Your task to perform on an android device: Clear the cart on costco.com. Image 0: 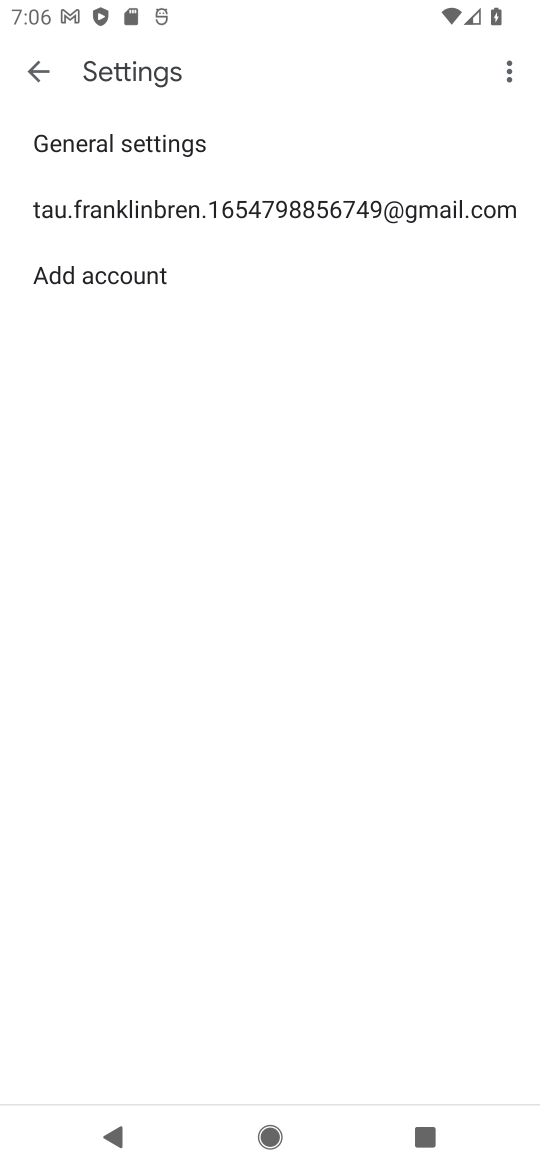
Step 0: press home button
Your task to perform on an android device: Clear the cart on costco.com. Image 1: 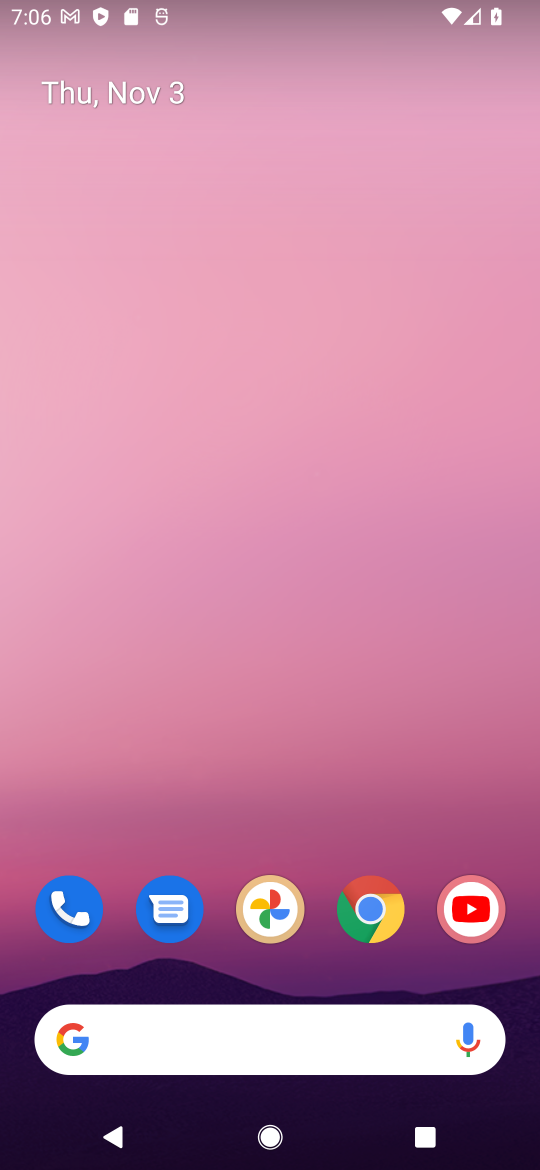
Step 1: drag from (151, 978) to (267, 343)
Your task to perform on an android device: Clear the cart on costco.com. Image 2: 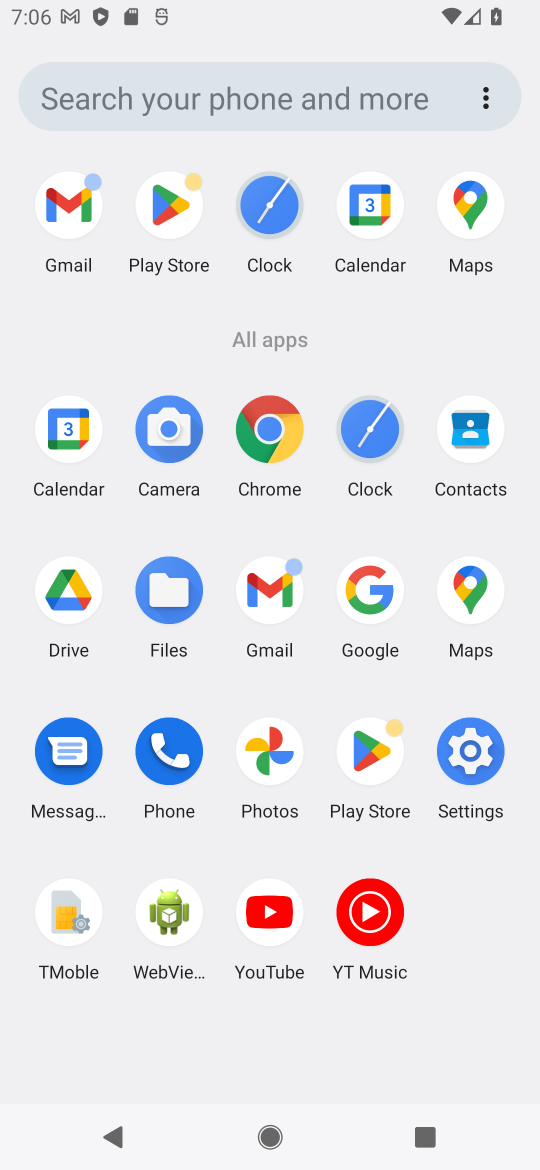
Step 2: click (374, 598)
Your task to perform on an android device: Clear the cart on costco.com. Image 3: 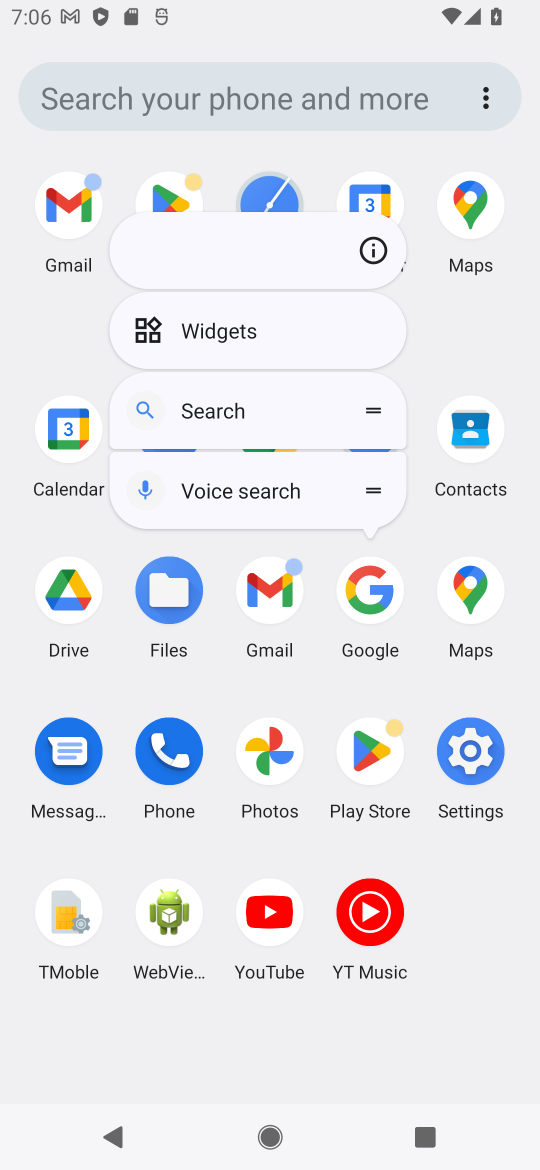
Step 3: click (360, 578)
Your task to perform on an android device: Clear the cart on costco.com. Image 4: 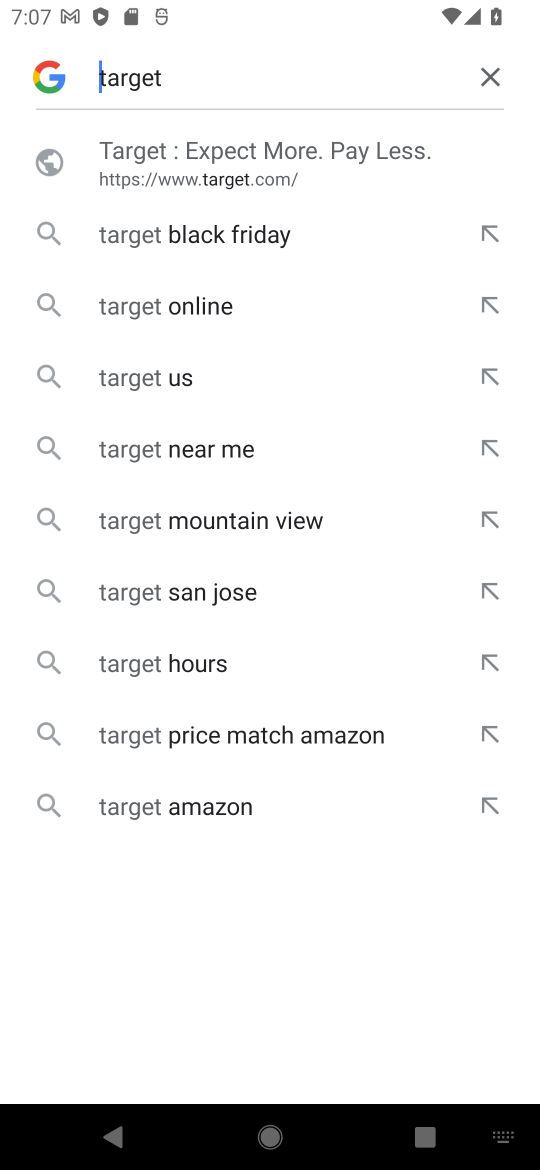
Step 4: click (484, 60)
Your task to perform on an android device: Clear the cart on costco.com. Image 5: 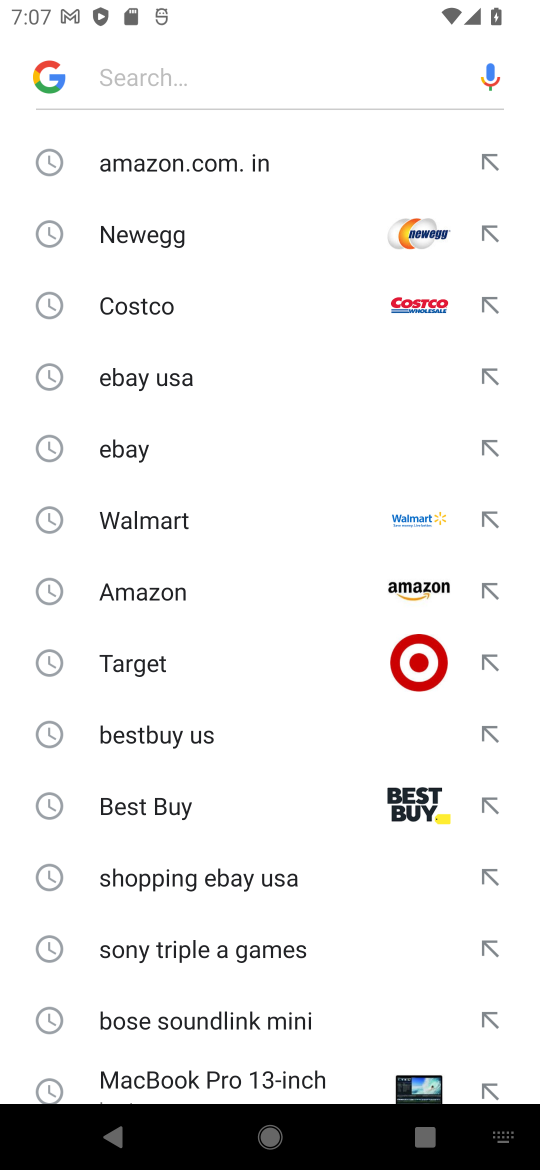
Step 5: click (230, 79)
Your task to perform on an android device: Clear the cart on costco.com. Image 6: 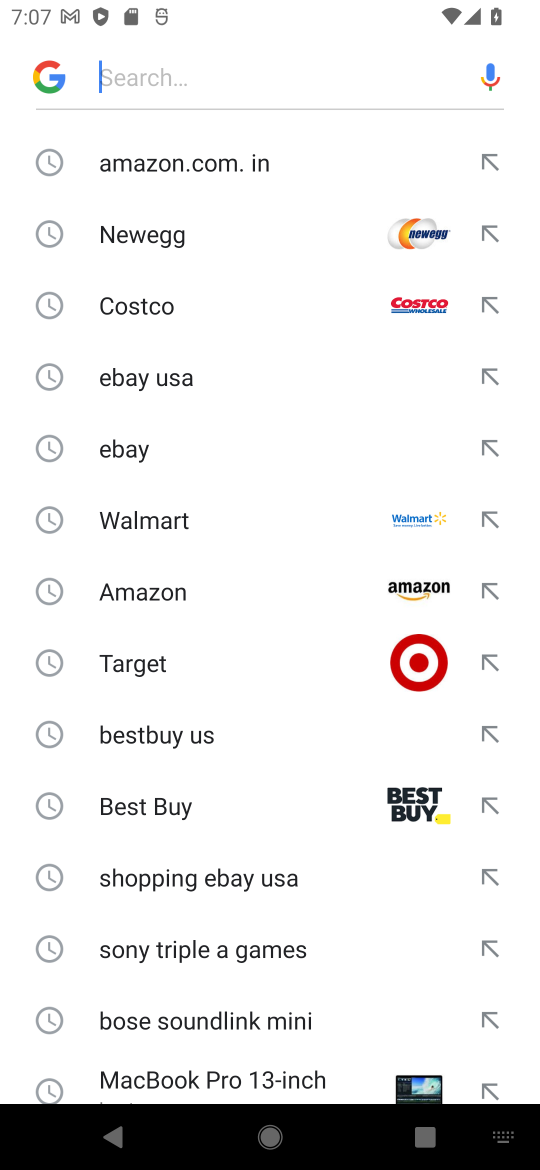
Step 6: type "costco.com. "
Your task to perform on an android device: Clear the cart on costco.com. Image 7: 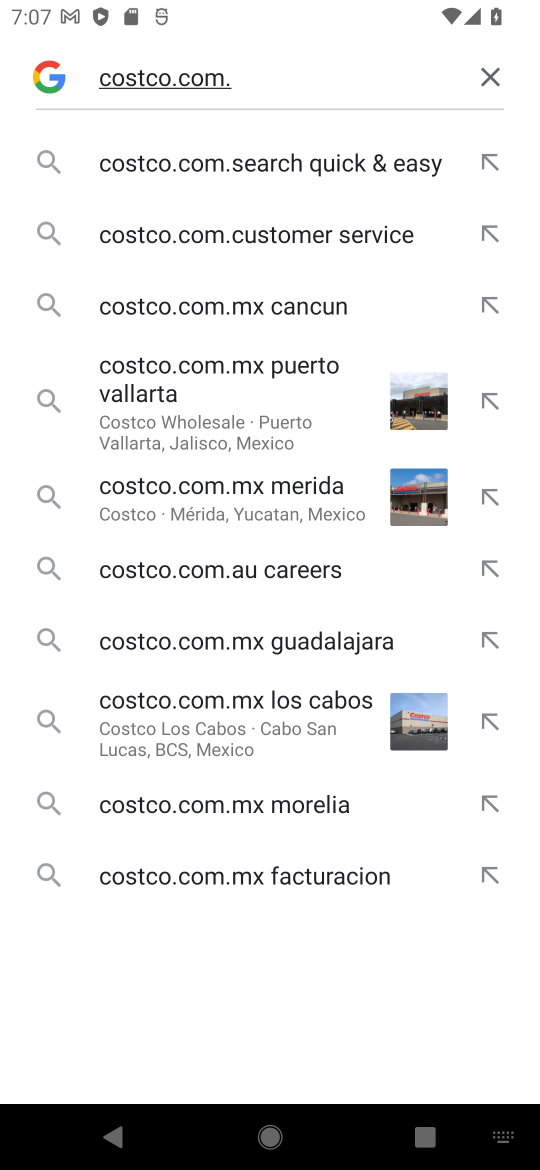
Step 7: click (483, 67)
Your task to perform on an android device: Clear the cart on costco.com. Image 8: 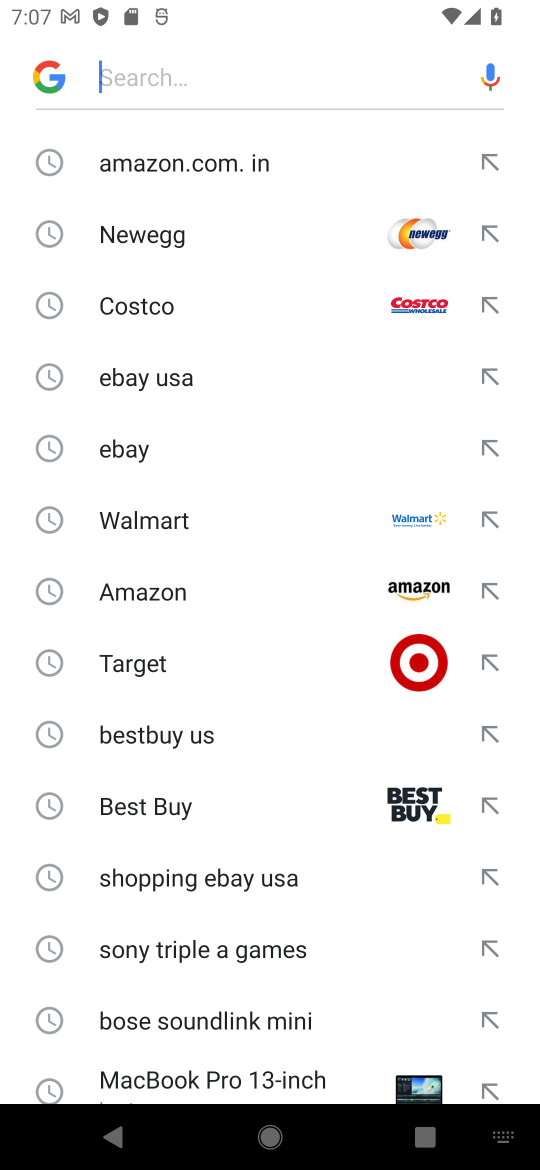
Step 8: click (170, 296)
Your task to perform on an android device: Clear the cart on costco.com. Image 9: 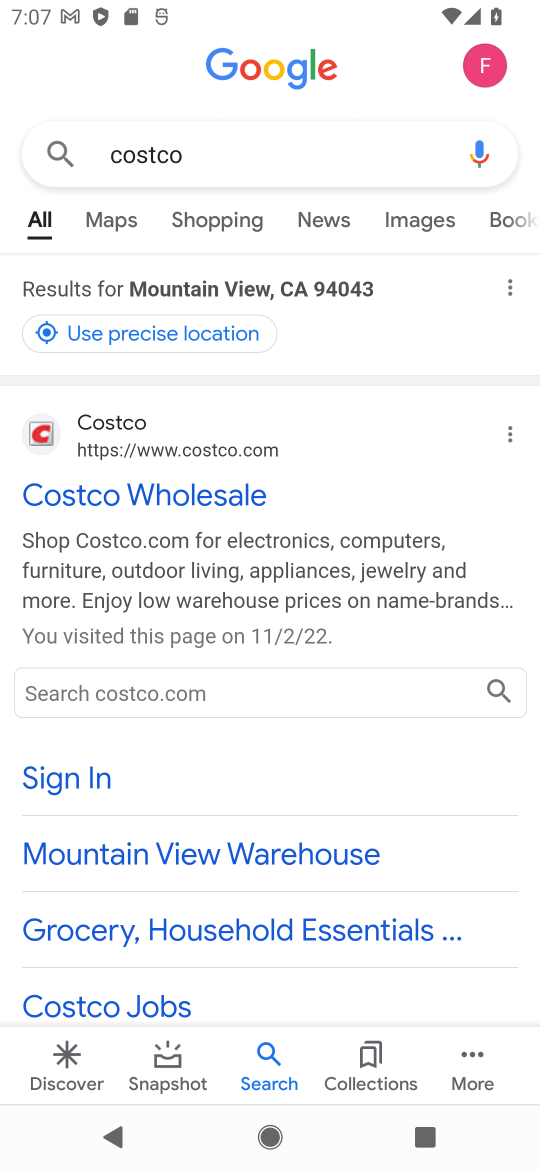
Step 9: click (43, 440)
Your task to perform on an android device: Clear the cart on costco.com. Image 10: 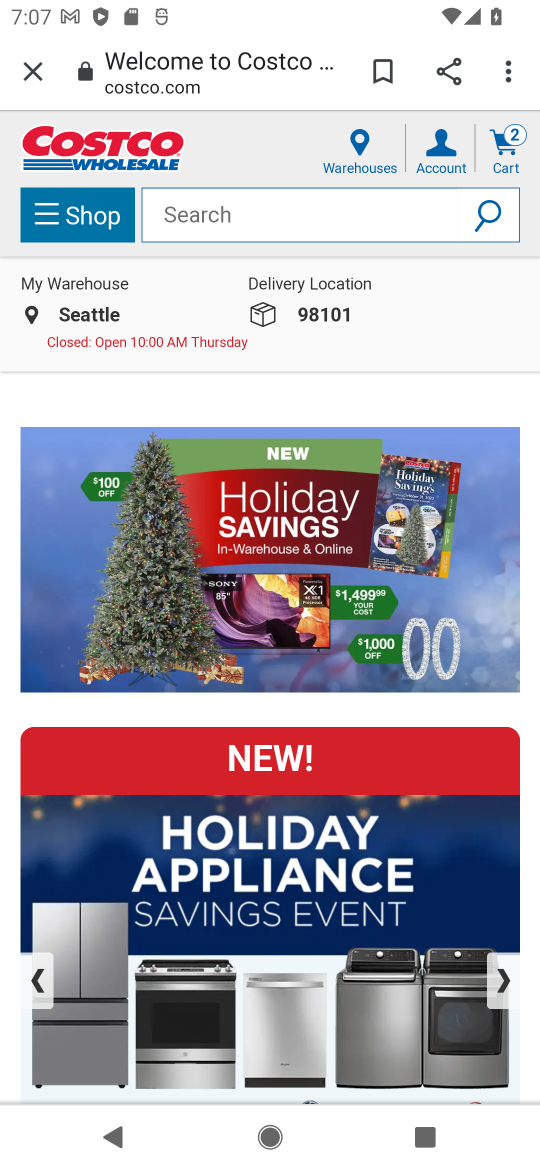
Step 10: click (500, 145)
Your task to perform on an android device: Clear the cart on costco.com. Image 11: 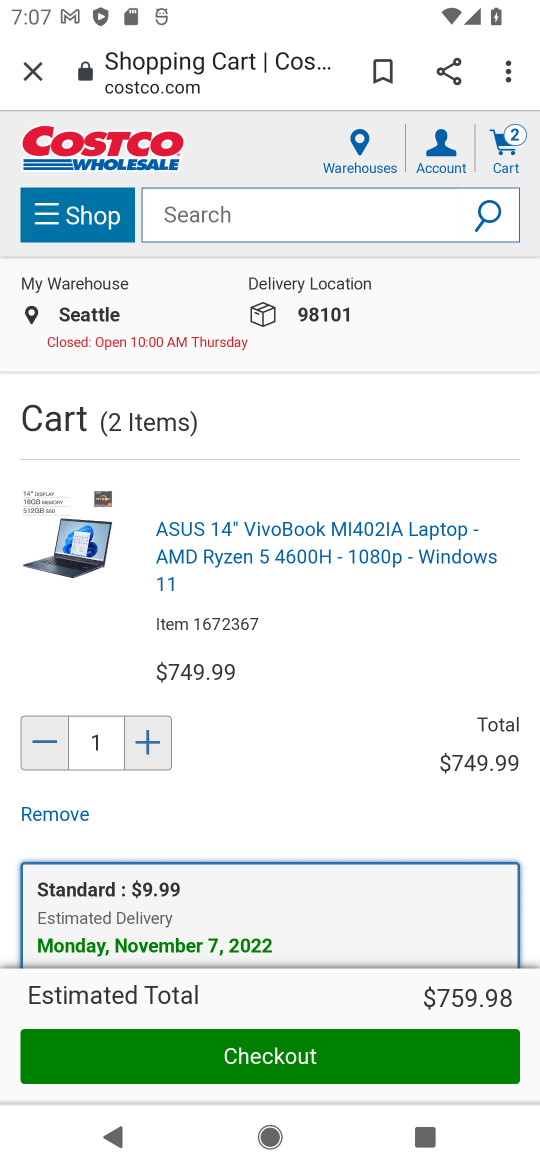
Step 11: click (59, 804)
Your task to perform on an android device: Clear the cart on costco.com. Image 12: 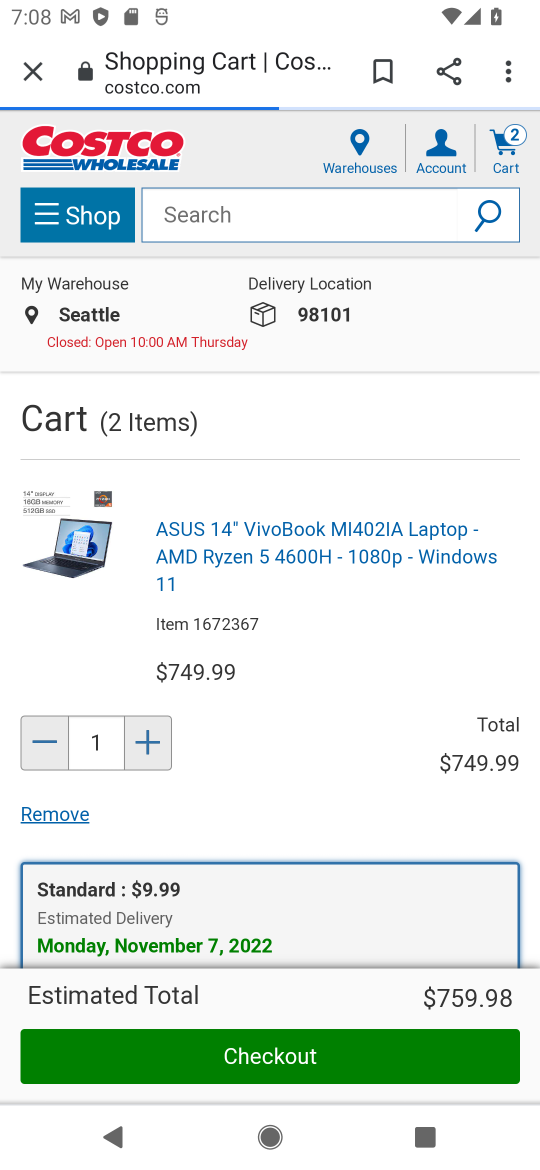
Step 12: click (59, 819)
Your task to perform on an android device: Clear the cart on costco.com. Image 13: 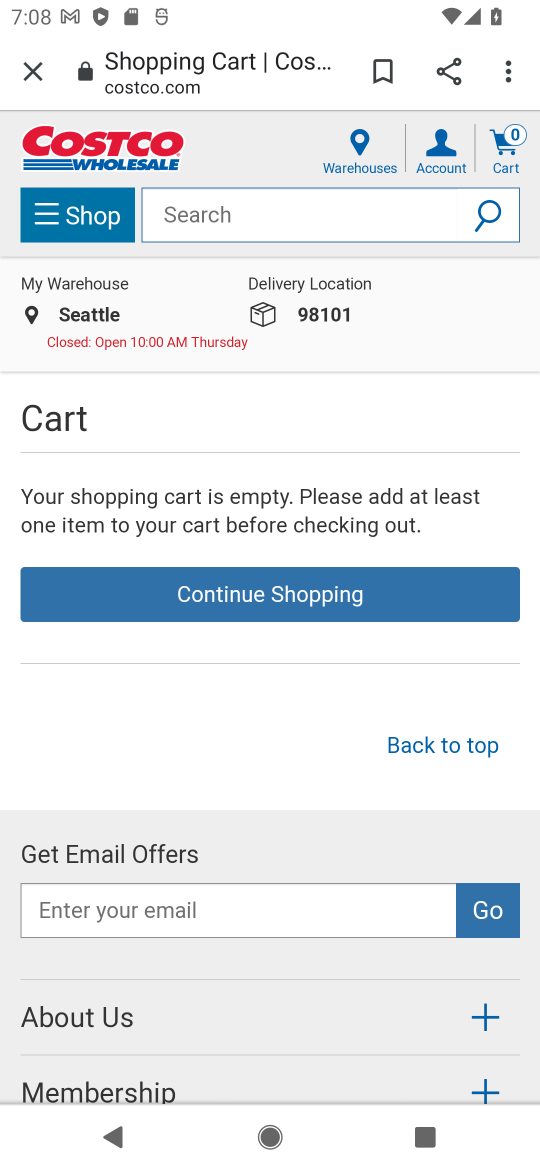
Step 13: task complete